Your task to perform on an android device: Open calendar and show me the second week of next month Image 0: 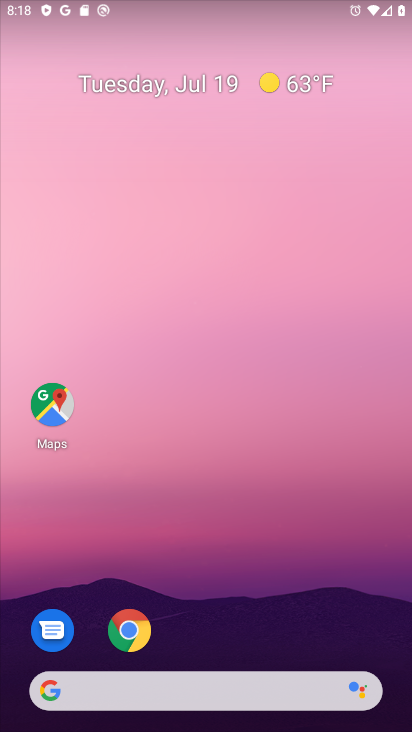
Step 0: drag from (288, 643) to (322, 4)
Your task to perform on an android device: Open calendar and show me the second week of next month Image 1: 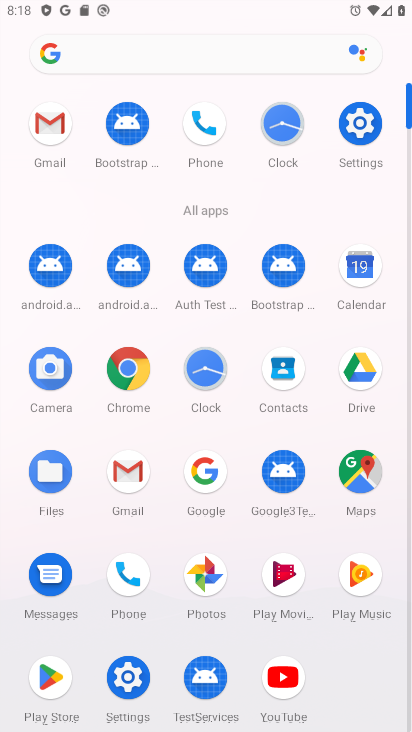
Step 1: click (363, 254)
Your task to perform on an android device: Open calendar and show me the second week of next month Image 2: 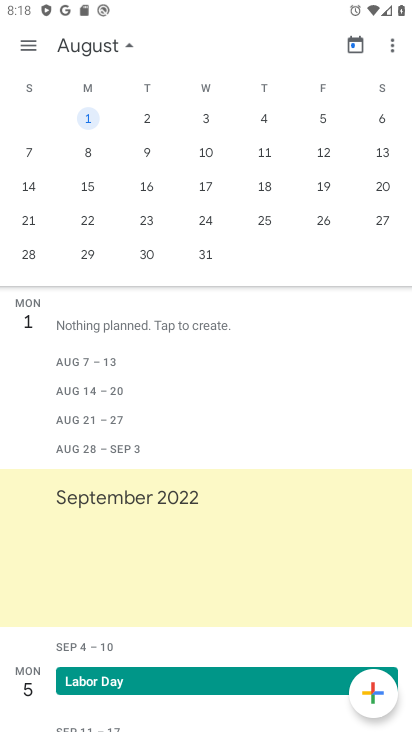
Step 2: click (26, 156)
Your task to perform on an android device: Open calendar and show me the second week of next month Image 3: 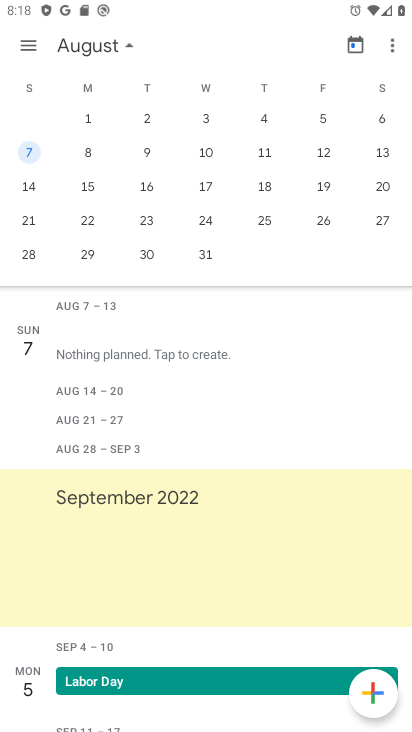
Step 3: task complete